Your task to perform on an android device: manage bookmarks in the chrome app Image 0: 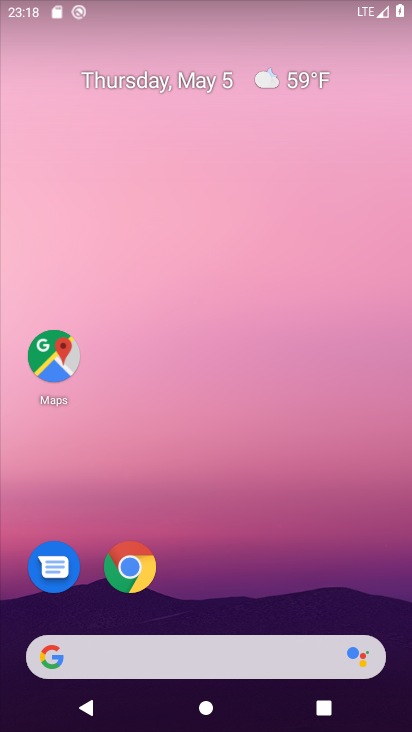
Step 0: click (141, 577)
Your task to perform on an android device: manage bookmarks in the chrome app Image 1: 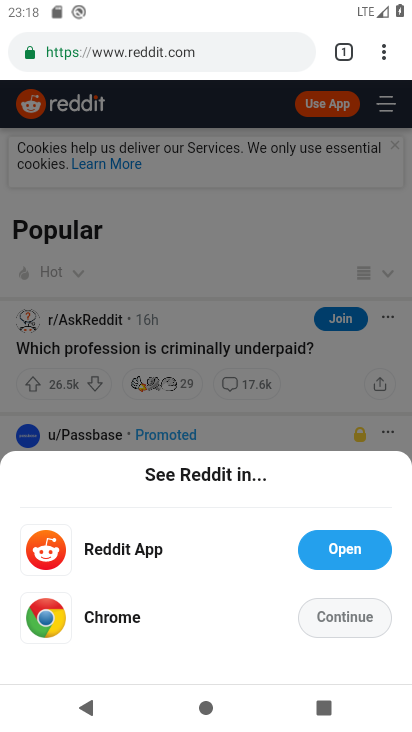
Step 1: drag from (387, 45) to (196, 205)
Your task to perform on an android device: manage bookmarks in the chrome app Image 2: 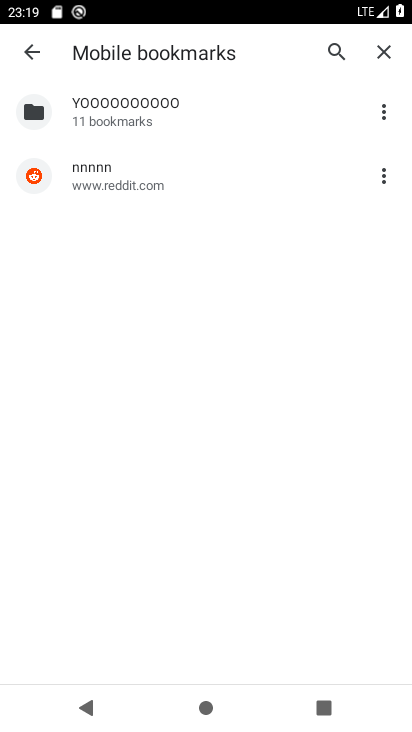
Step 2: click (130, 119)
Your task to perform on an android device: manage bookmarks in the chrome app Image 3: 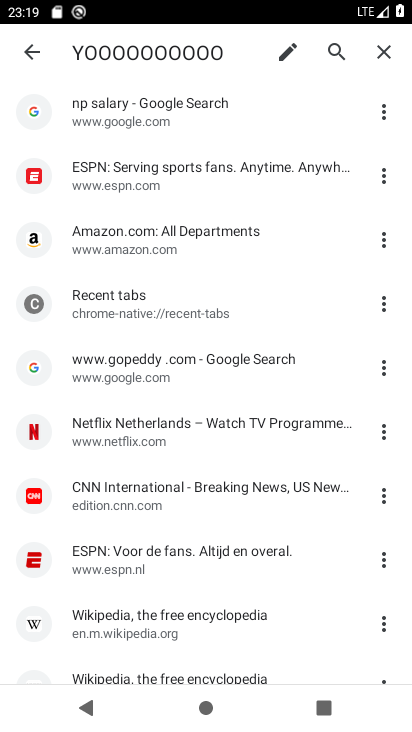
Step 3: click (384, 307)
Your task to perform on an android device: manage bookmarks in the chrome app Image 4: 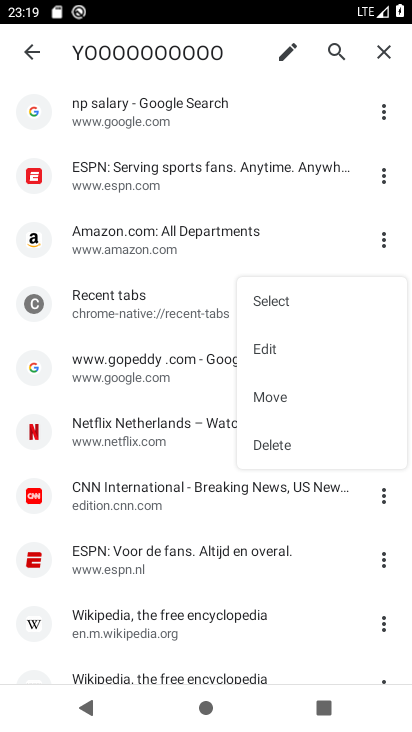
Step 4: click (259, 438)
Your task to perform on an android device: manage bookmarks in the chrome app Image 5: 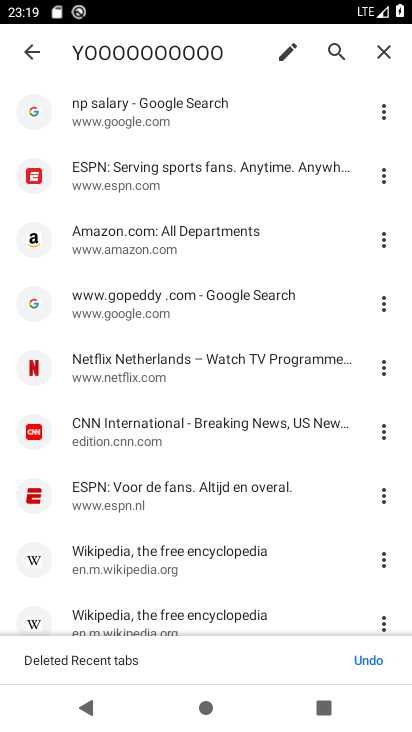
Step 5: task complete